Your task to perform on an android device: toggle priority inbox in the gmail app Image 0: 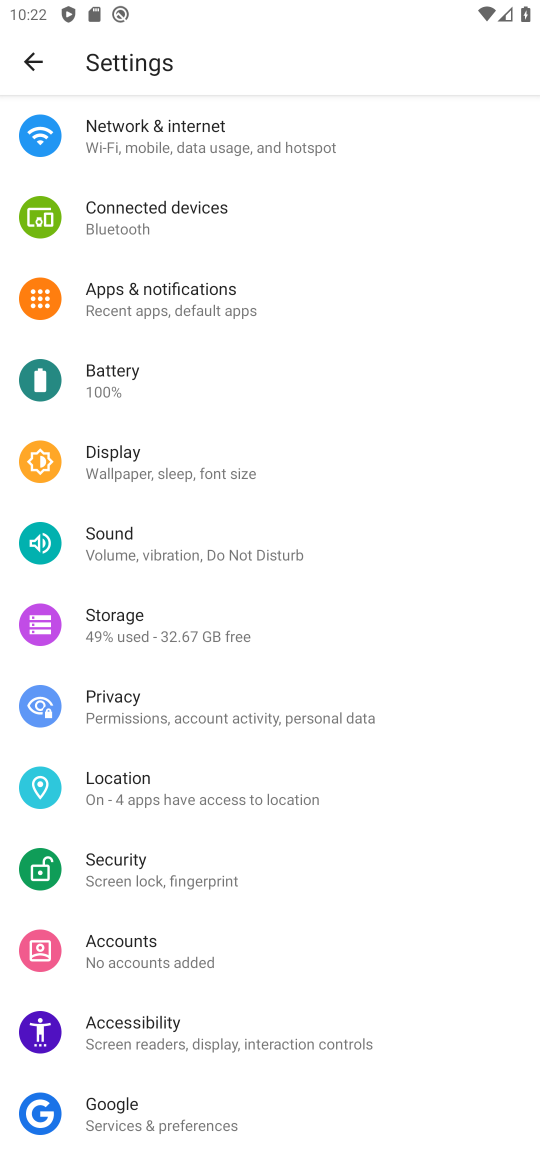
Step 0: press home button
Your task to perform on an android device: toggle priority inbox in the gmail app Image 1: 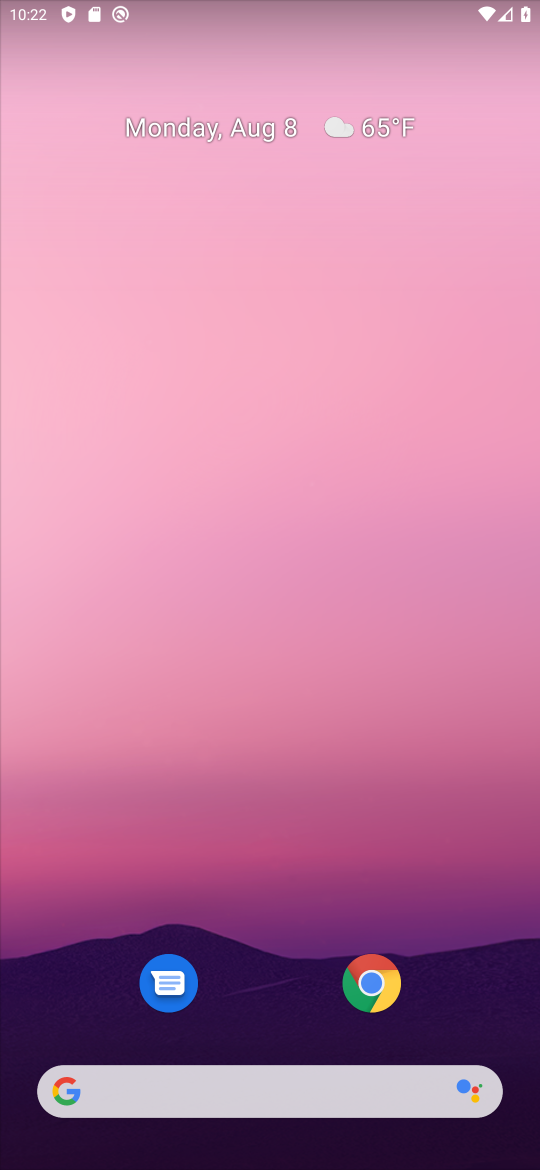
Step 1: drag from (245, 1026) to (147, 20)
Your task to perform on an android device: toggle priority inbox in the gmail app Image 2: 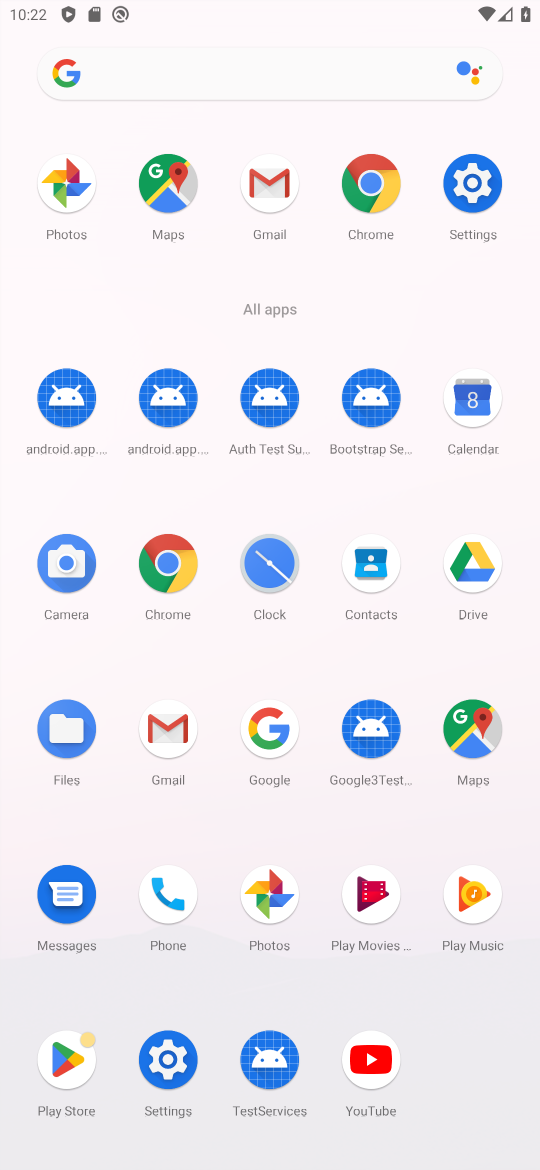
Step 2: click (183, 735)
Your task to perform on an android device: toggle priority inbox in the gmail app Image 3: 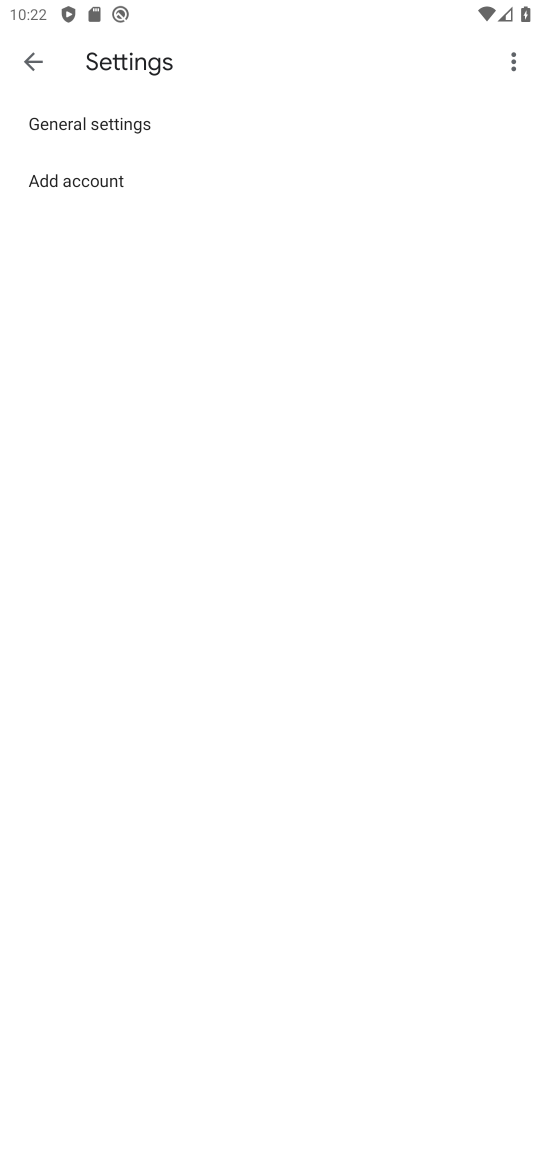
Step 3: task complete